Your task to perform on an android device: Open Google Chrome and click the shortcut for Amazon.com Image 0: 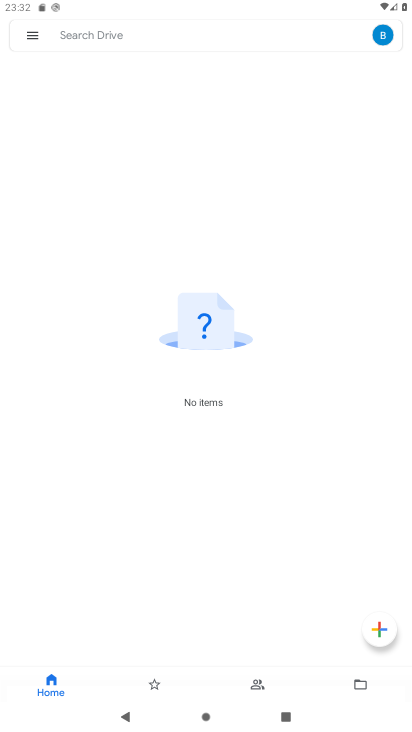
Step 0: press home button
Your task to perform on an android device: Open Google Chrome and click the shortcut for Amazon.com Image 1: 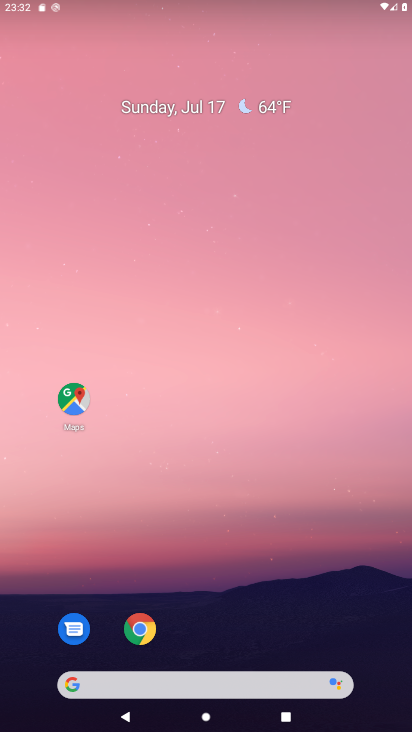
Step 1: drag from (202, 621) to (206, 250)
Your task to perform on an android device: Open Google Chrome and click the shortcut for Amazon.com Image 2: 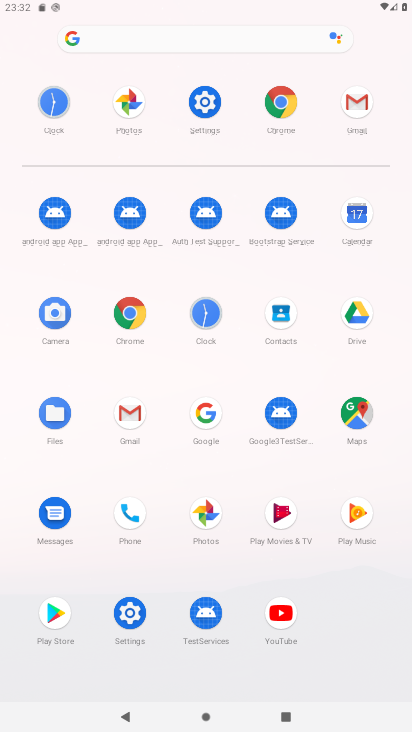
Step 2: click (130, 311)
Your task to perform on an android device: Open Google Chrome and click the shortcut for Amazon.com Image 3: 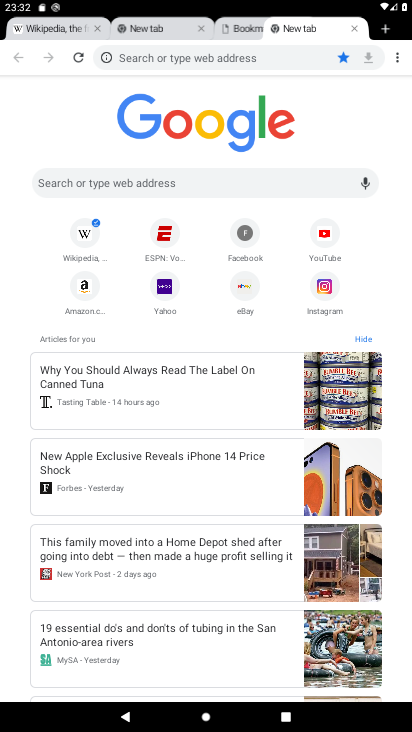
Step 3: click (85, 289)
Your task to perform on an android device: Open Google Chrome and click the shortcut for Amazon.com Image 4: 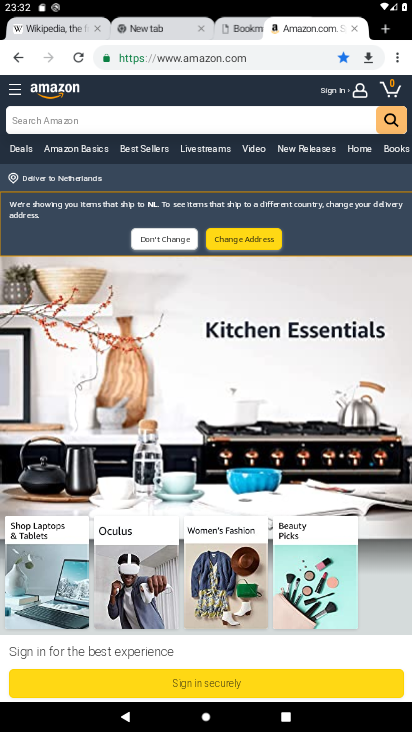
Step 4: task complete